Your task to perform on an android device: Open calendar and show me the first week of next month Image 0: 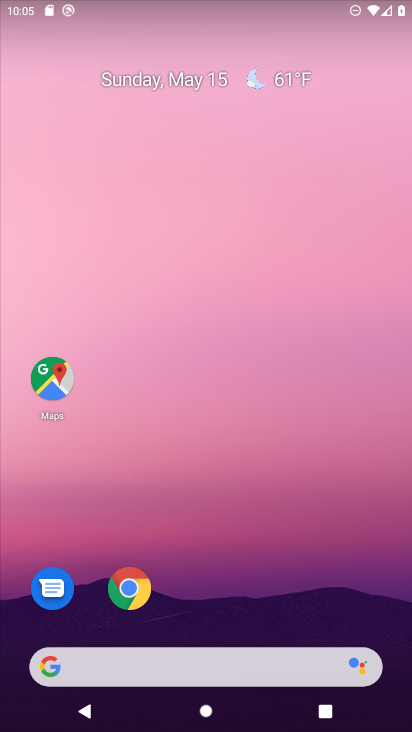
Step 0: drag from (210, 620) to (379, 19)
Your task to perform on an android device: Open calendar and show me the first week of next month Image 1: 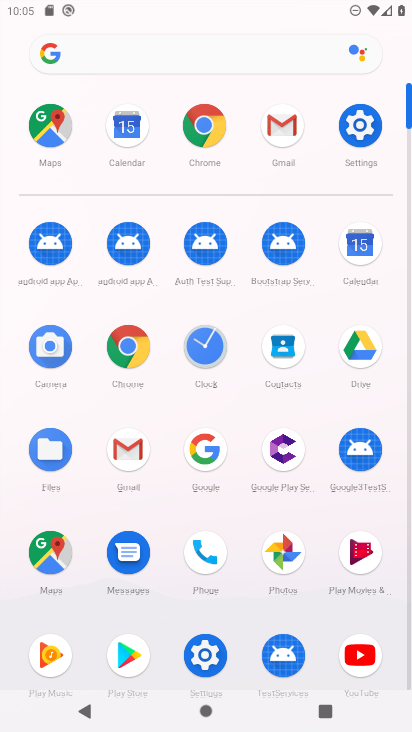
Step 1: click (361, 256)
Your task to perform on an android device: Open calendar and show me the first week of next month Image 2: 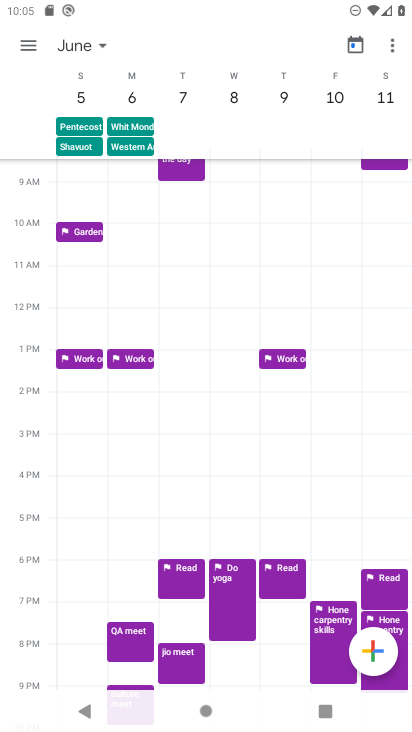
Step 2: task complete